Your task to perform on an android device: Open the camera Image 0: 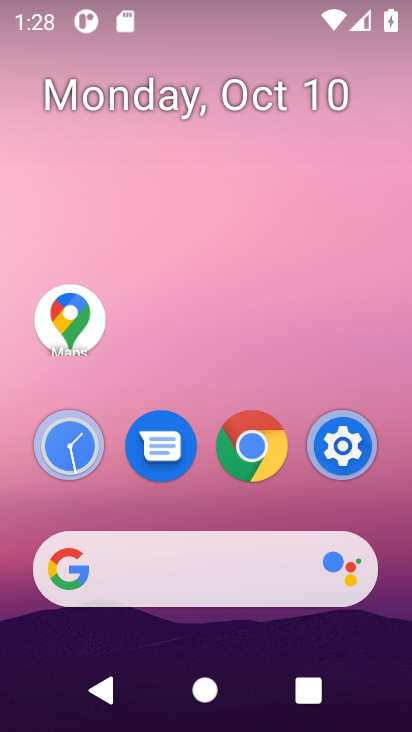
Step 0: drag from (207, 519) to (202, 0)
Your task to perform on an android device: Open the camera Image 1: 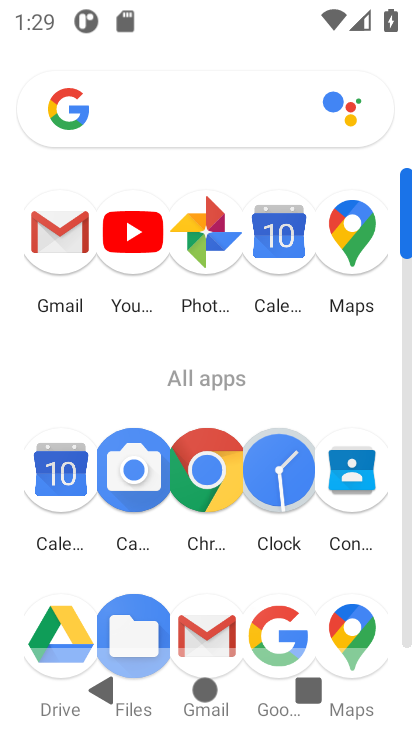
Step 1: click (109, 489)
Your task to perform on an android device: Open the camera Image 2: 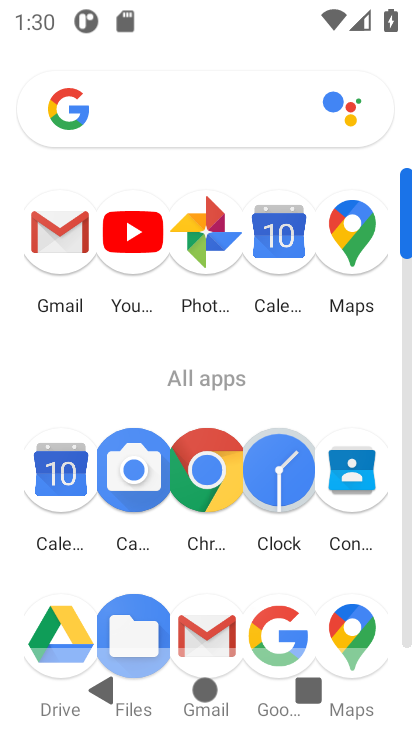
Step 2: click (142, 467)
Your task to perform on an android device: Open the camera Image 3: 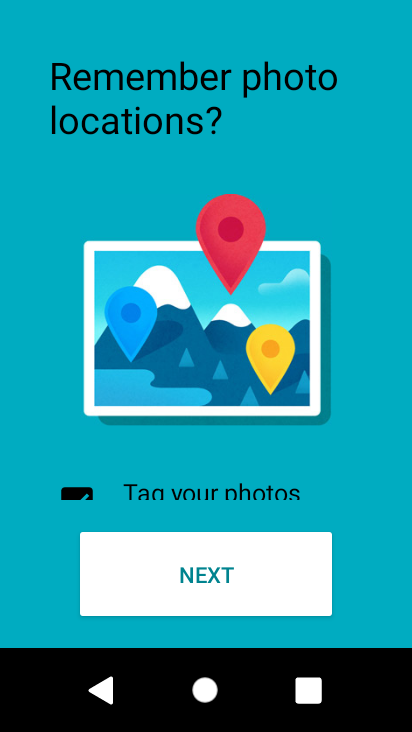
Step 3: task complete